Your task to perform on an android device: turn on the 12-hour format for clock Image 0: 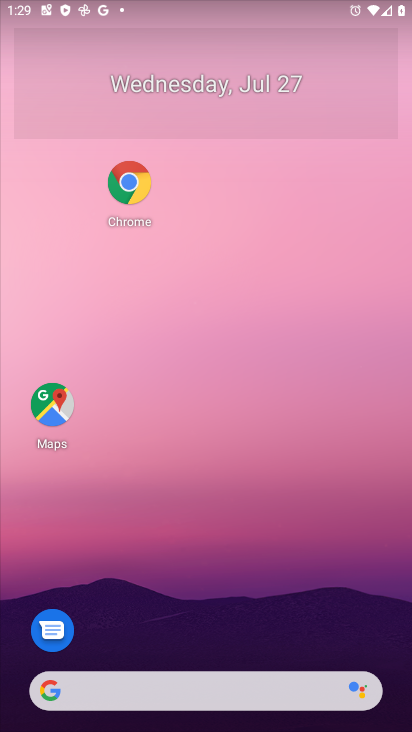
Step 0: drag from (244, 714) to (304, 313)
Your task to perform on an android device: turn on the 12-hour format for clock Image 1: 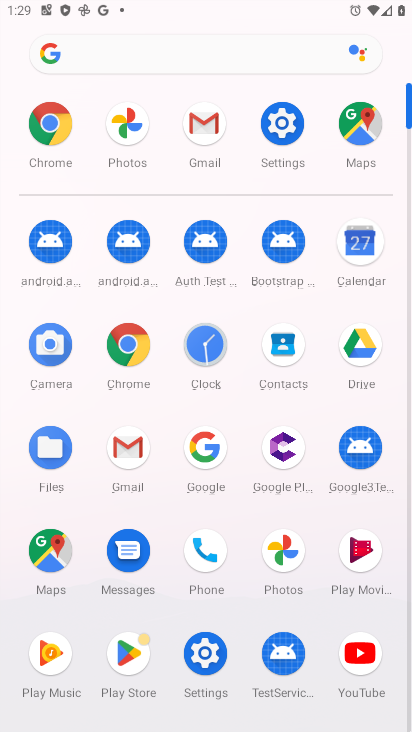
Step 1: click (215, 356)
Your task to perform on an android device: turn on the 12-hour format for clock Image 2: 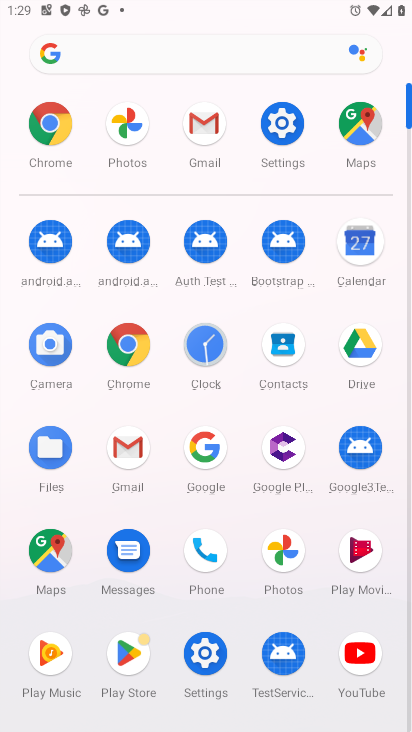
Step 2: click (215, 356)
Your task to perform on an android device: turn on the 12-hour format for clock Image 3: 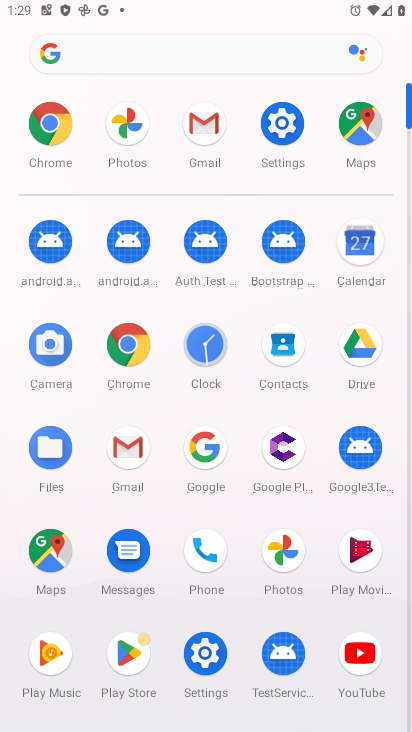
Step 3: click (215, 356)
Your task to perform on an android device: turn on the 12-hour format for clock Image 4: 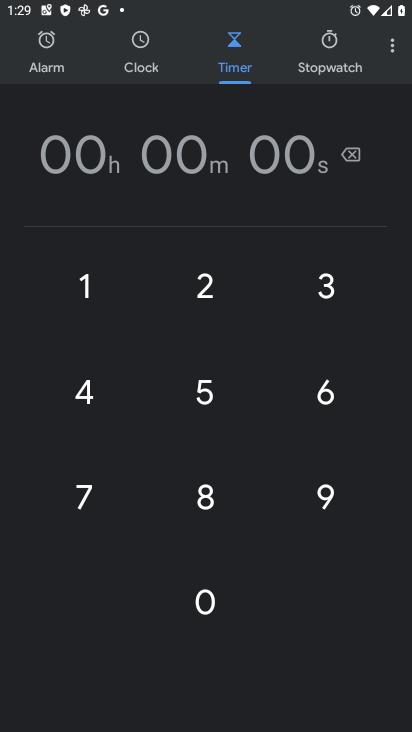
Step 4: click (390, 44)
Your task to perform on an android device: turn on the 12-hour format for clock Image 5: 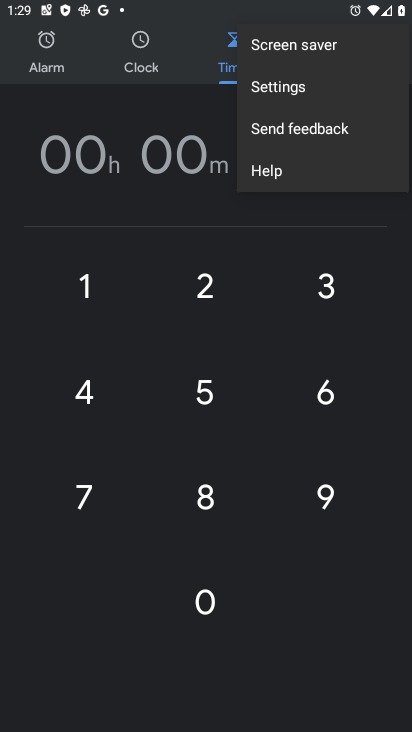
Step 5: click (331, 101)
Your task to perform on an android device: turn on the 12-hour format for clock Image 6: 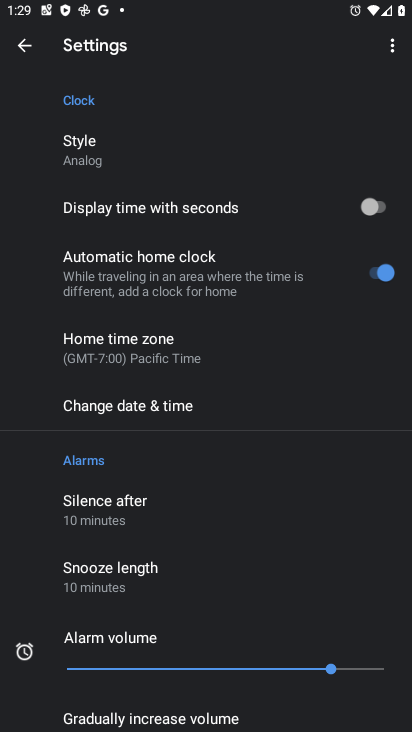
Step 6: click (215, 412)
Your task to perform on an android device: turn on the 12-hour format for clock Image 7: 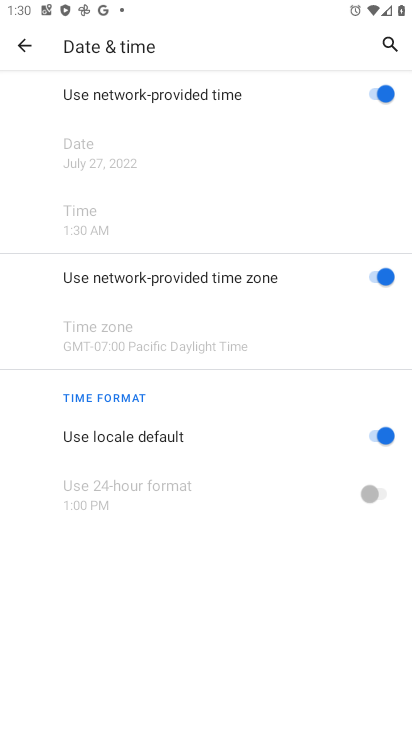
Step 7: task complete